Your task to perform on an android device: turn on sleep mode Image 0: 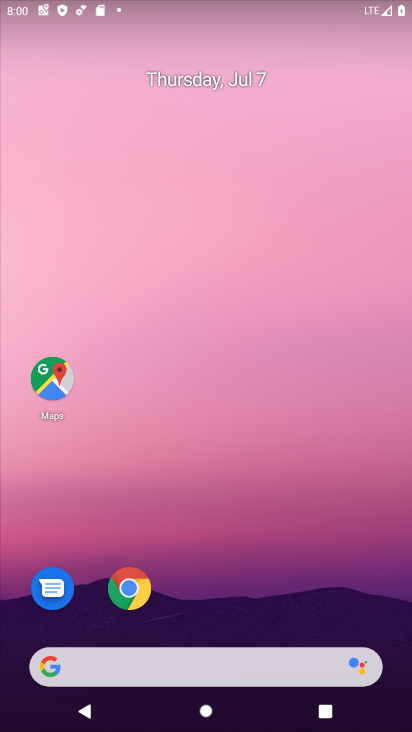
Step 0: drag from (303, 575) to (275, 142)
Your task to perform on an android device: turn on sleep mode Image 1: 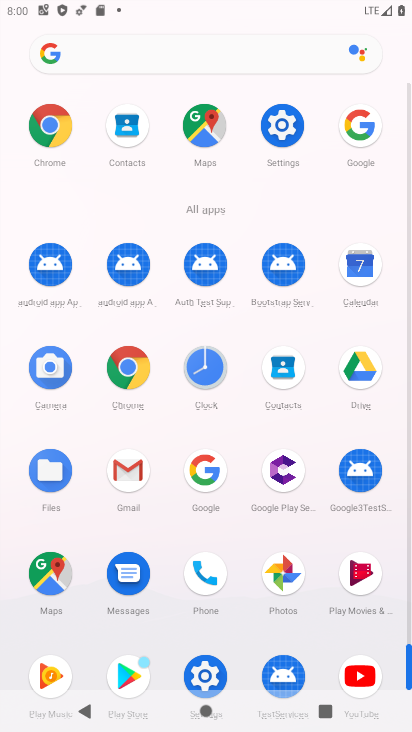
Step 1: click (276, 141)
Your task to perform on an android device: turn on sleep mode Image 2: 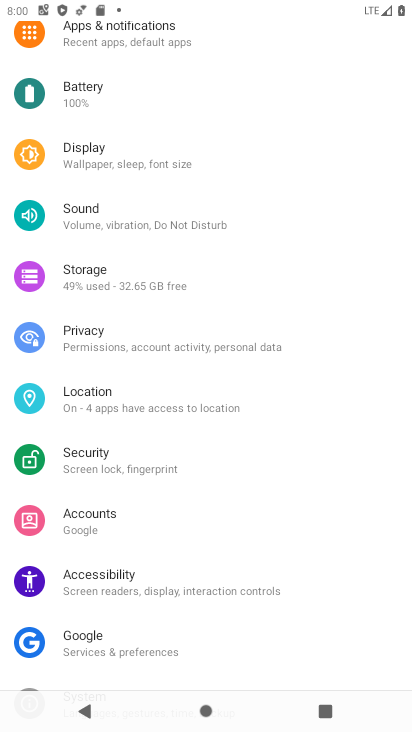
Step 2: drag from (217, 114) to (258, 663)
Your task to perform on an android device: turn on sleep mode Image 3: 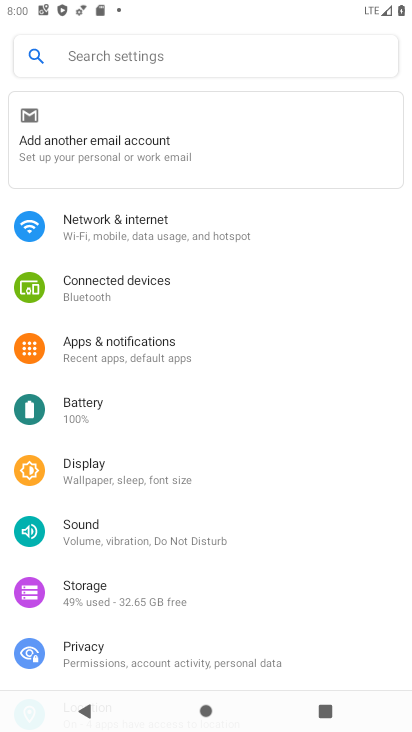
Step 3: click (133, 478)
Your task to perform on an android device: turn on sleep mode Image 4: 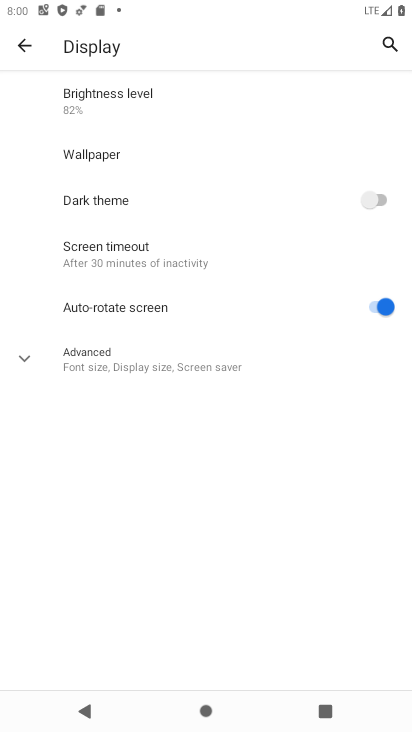
Step 4: click (125, 258)
Your task to perform on an android device: turn on sleep mode Image 5: 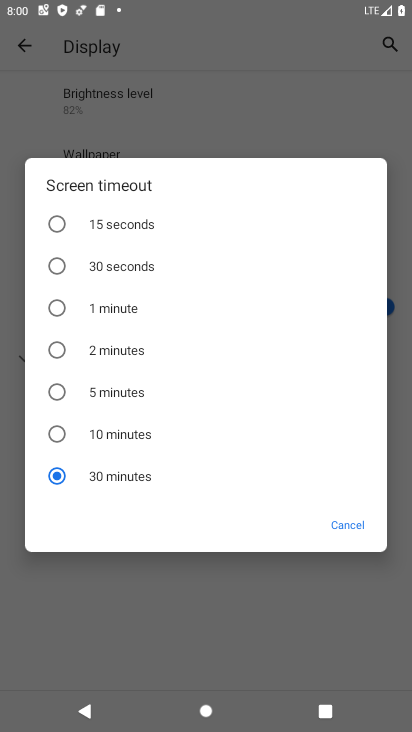
Step 5: task complete